Your task to perform on an android device: Open the Play Movies app and select the watchlist tab. Image 0: 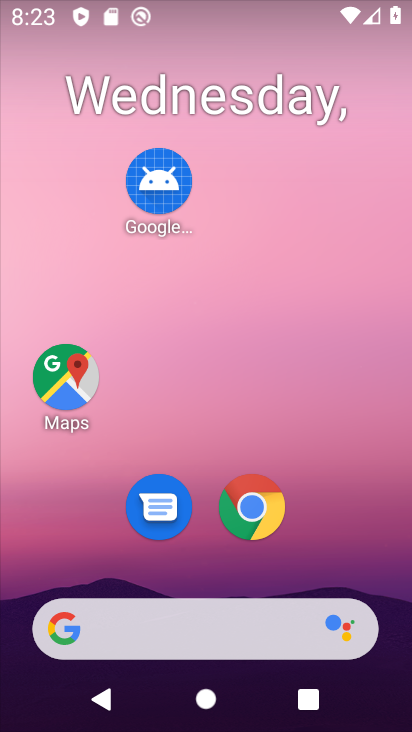
Step 0: drag from (229, 586) to (147, 56)
Your task to perform on an android device: Open the Play Movies app and select the watchlist tab. Image 1: 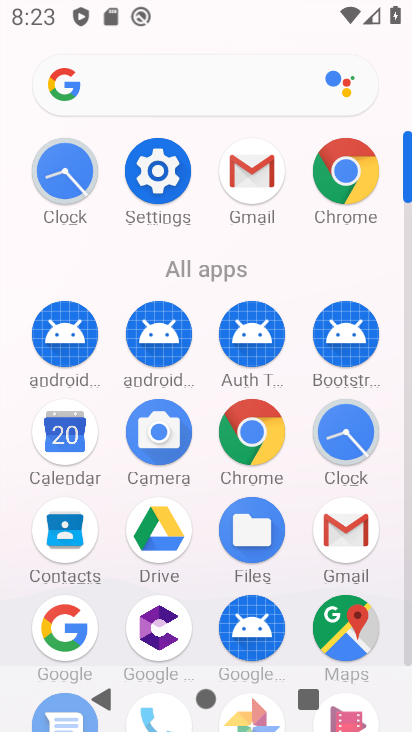
Step 1: drag from (290, 582) to (270, 134)
Your task to perform on an android device: Open the Play Movies app and select the watchlist tab. Image 2: 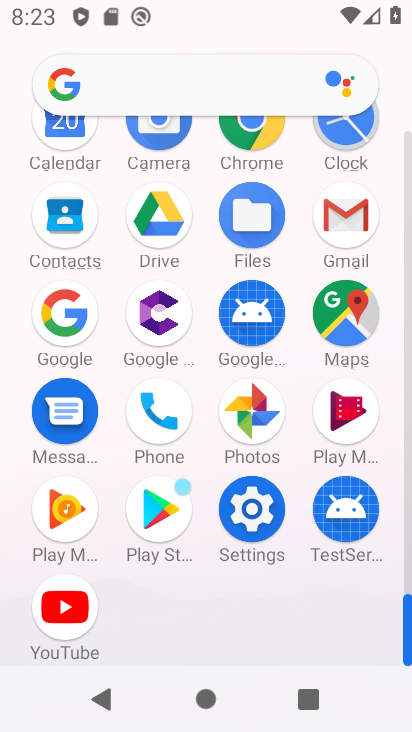
Step 2: click (350, 418)
Your task to perform on an android device: Open the Play Movies app and select the watchlist tab. Image 3: 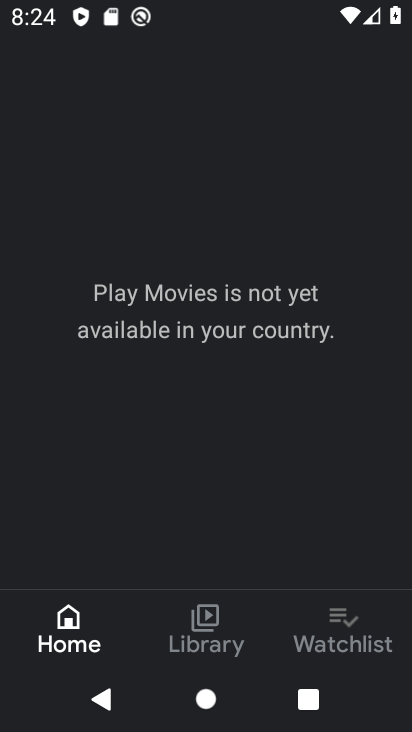
Step 3: click (325, 616)
Your task to perform on an android device: Open the Play Movies app and select the watchlist tab. Image 4: 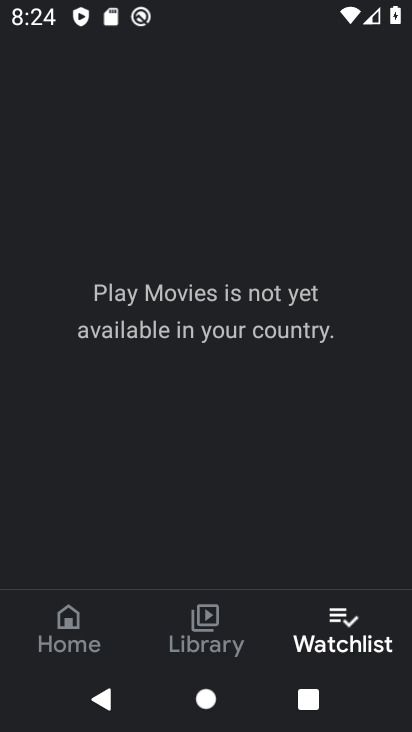
Step 4: task complete